Your task to perform on an android device: Open CNN.com Image 0: 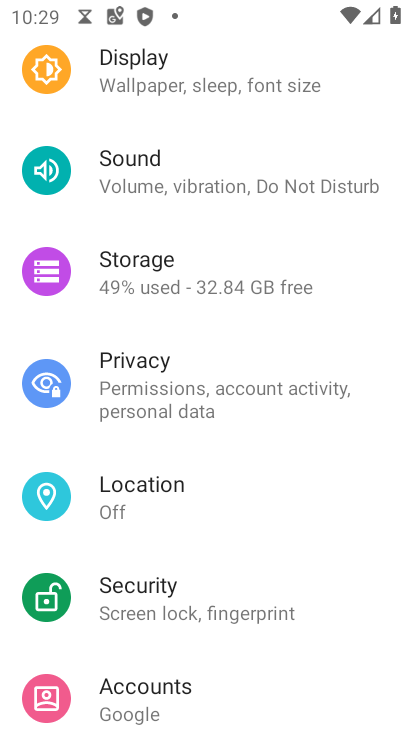
Step 0: press back button
Your task to perform on an android device: Open CNN.com Image 1: 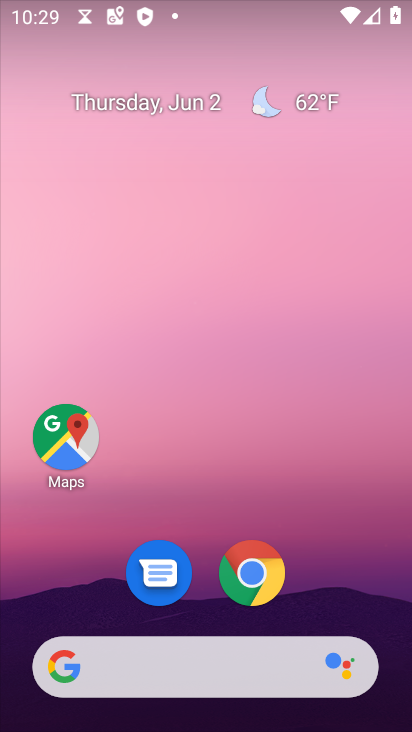
Step 1: click (251, 572)
Your task to perform on an android device: Open CNN.com Image 2: 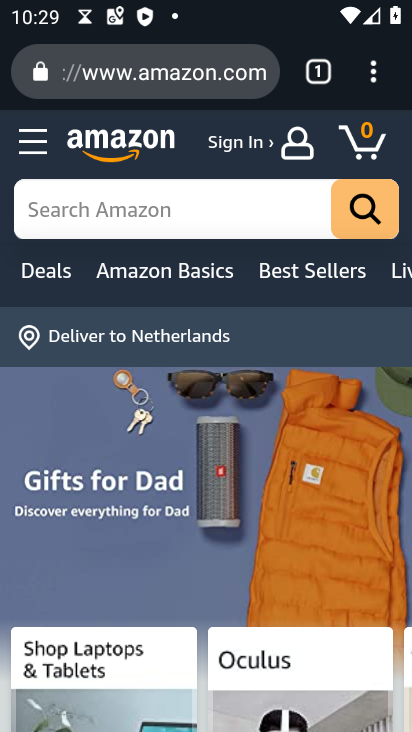
Step 2: click (215, 78)
Your task to perform on an android device: Open CNN.com Image 3: 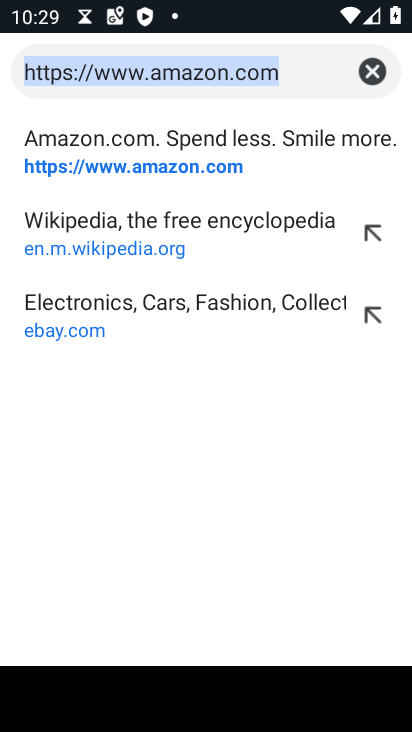
Step 3: click (370, 69)
Your task to perform on an android device: Open CNN.com Image 4: 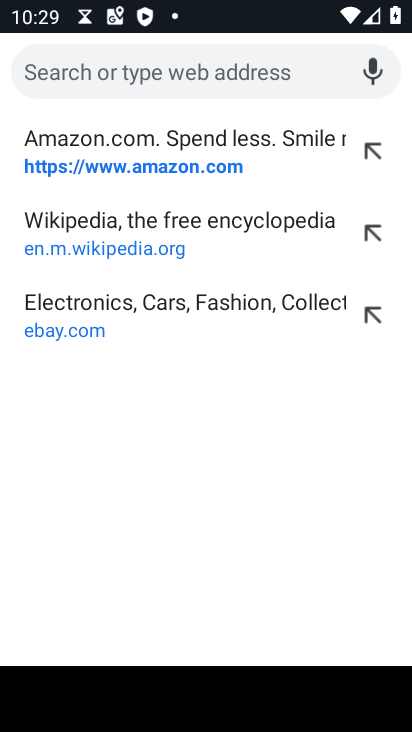
Step 4: click (219, 60)
Your task to perform on an android device: Open CNN.com Image 5: 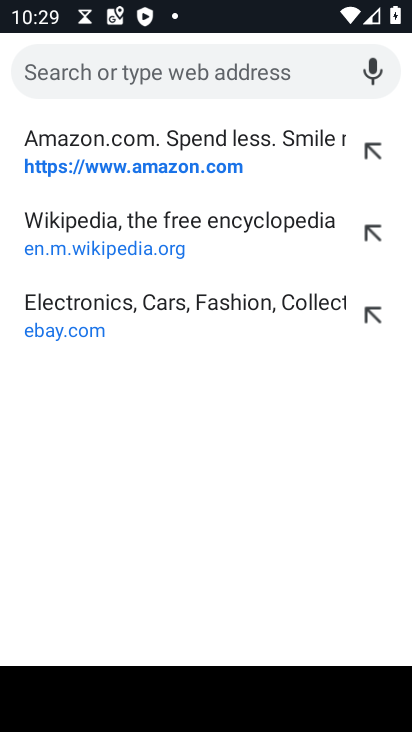
Step 5: type "CNN.com"
Your task to perform on an android device: Open CNN.com Image 6: 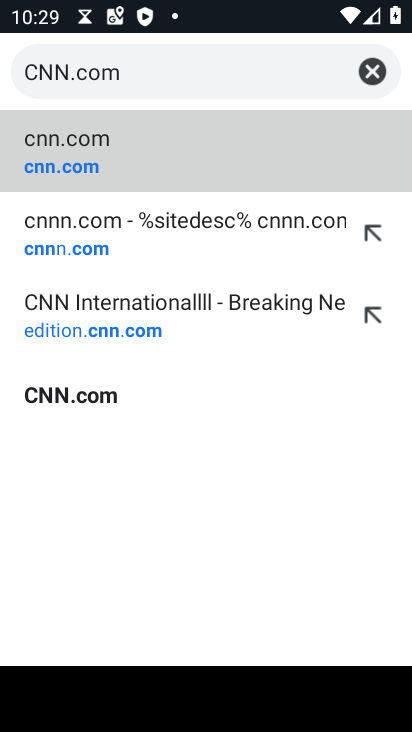
Step 6: click (93, 395)
Your task to perform on an android device: Open CNN.com Image 7: 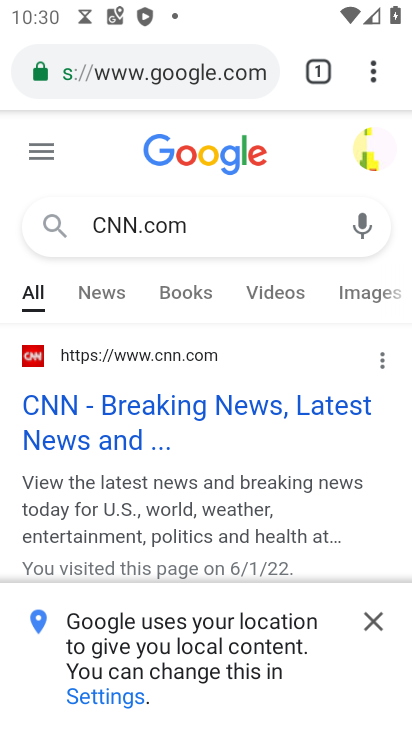
Step 7: click (141, 420)
Your task to perform on an android device: Open CNN.com Image 8: 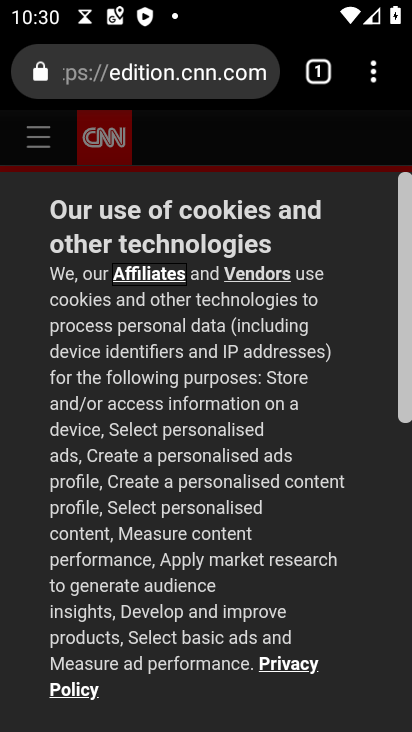
Step 8: task complete